Your task to perform on an android device: toggle priority inbox in the gmail app Image 0: 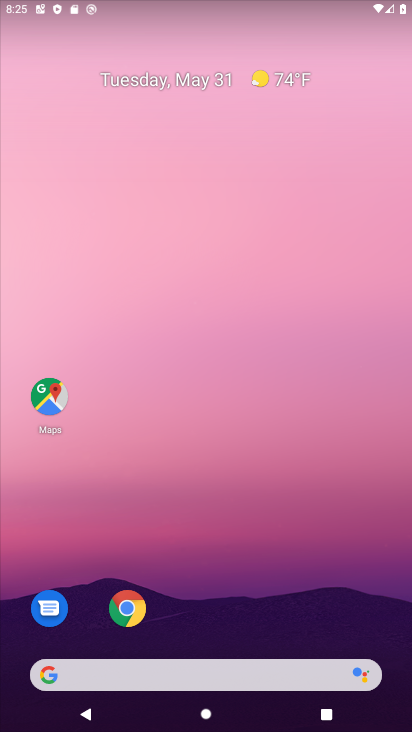
Step 0: drag from (217, 637) to (261, 28)
Your task to perform on an android device: toggle priority inbox in the gmail app Image 1: 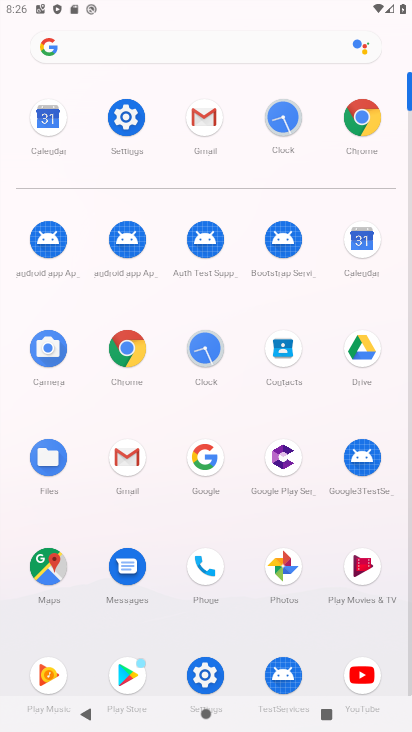
Step 1: click (128, 464)
Your task to perform on an android device: toggle priority inbox in the gmail app Image 2: 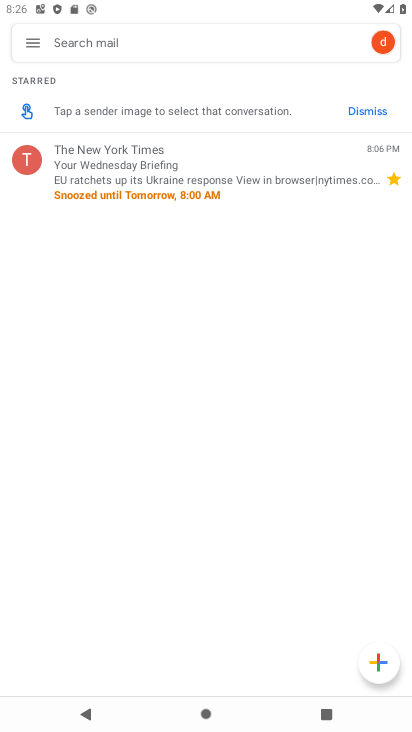
Step 2: click (33, 49)
Your task to perform on an android device: toggle priority inbox in the gmail app Image 3: 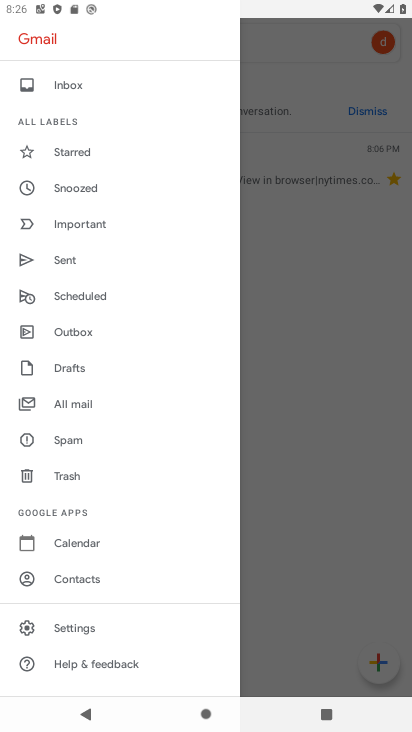
Step 3: click (63, 622)
Your task to perform on an android device: toggle priority inbox in the gmail app Image 4: 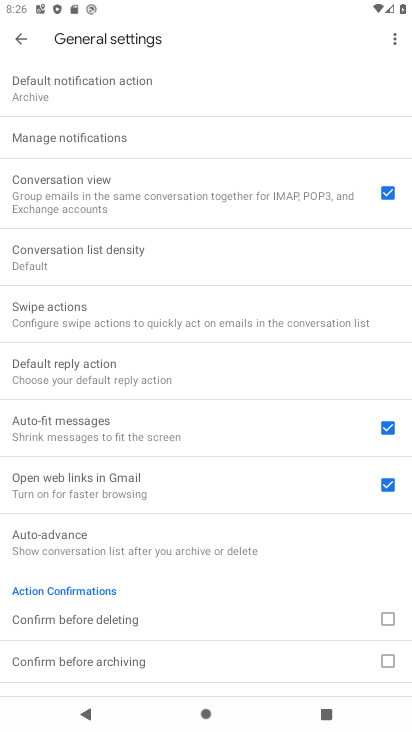
Step 4: click (16, 29)
Your task to perform on an android device: toggle priority inbox in the gmail app Image 5: 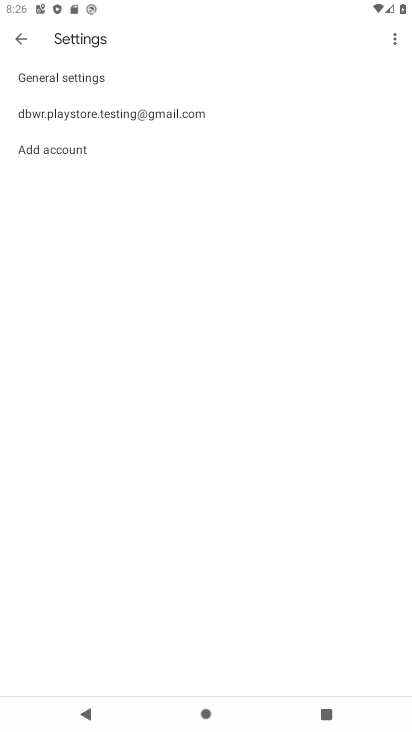
Step 5: click (29, 100)
Your task to perform on an android device: toggle priority inbox in the gmail app Image 6: 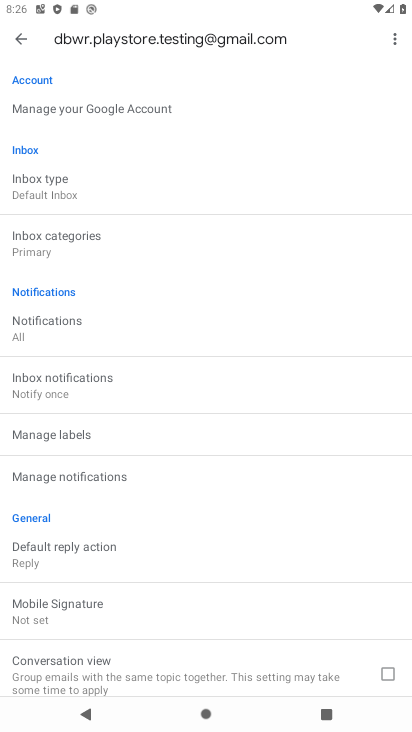
Step 6: click (47, 198)
Your task to perform on an android device: toggle priority inbox in the gmail app Image 7: 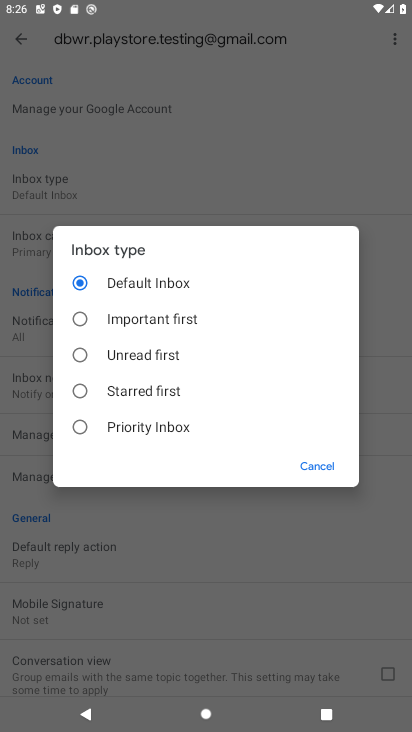
Step 7: click (186, 432)
Your task to perform on an android device: toggle priority inbox in the gmail app Image 8: 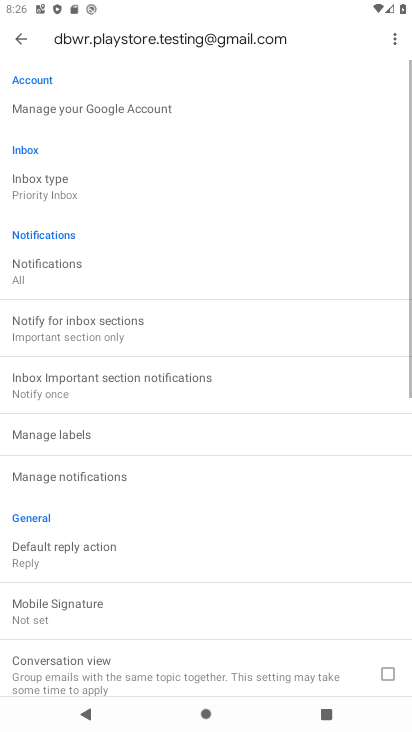
Step 8: task complete